Your task to perform on an android device: open app "Messages" Image 0: 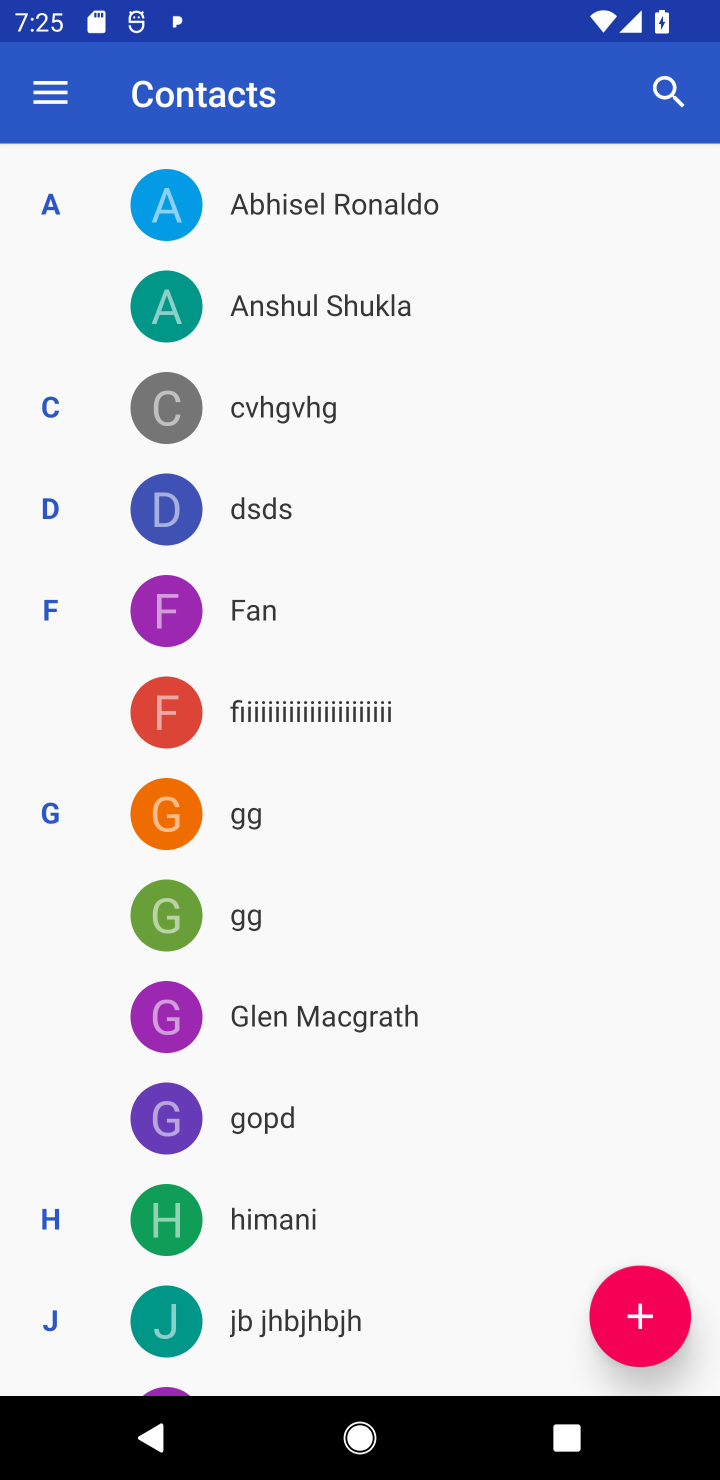
Step 0: press home button
Your task to perform on an android device: open app "Messages" Image 1: 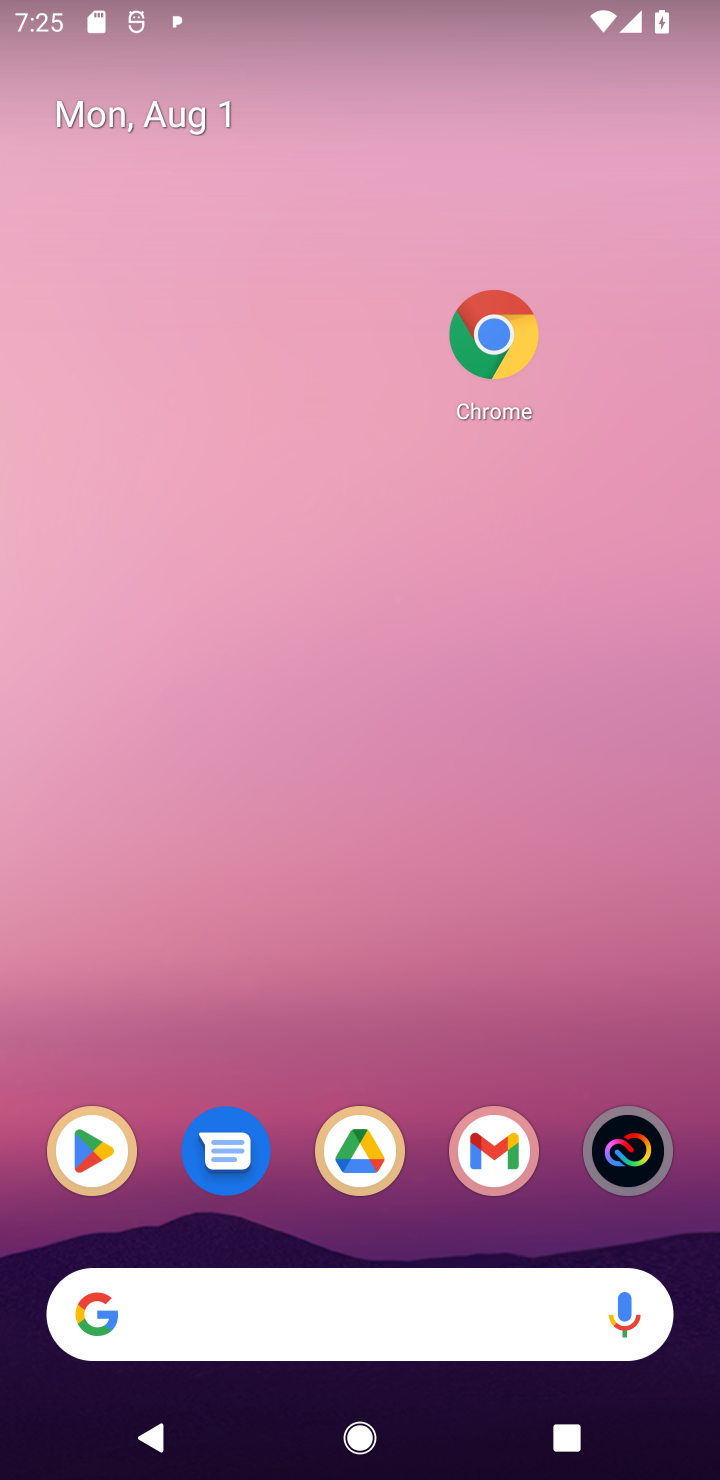
Step 1: click (94, 1161)
Your task to perform on an android device: open app "Messages" Image 2: 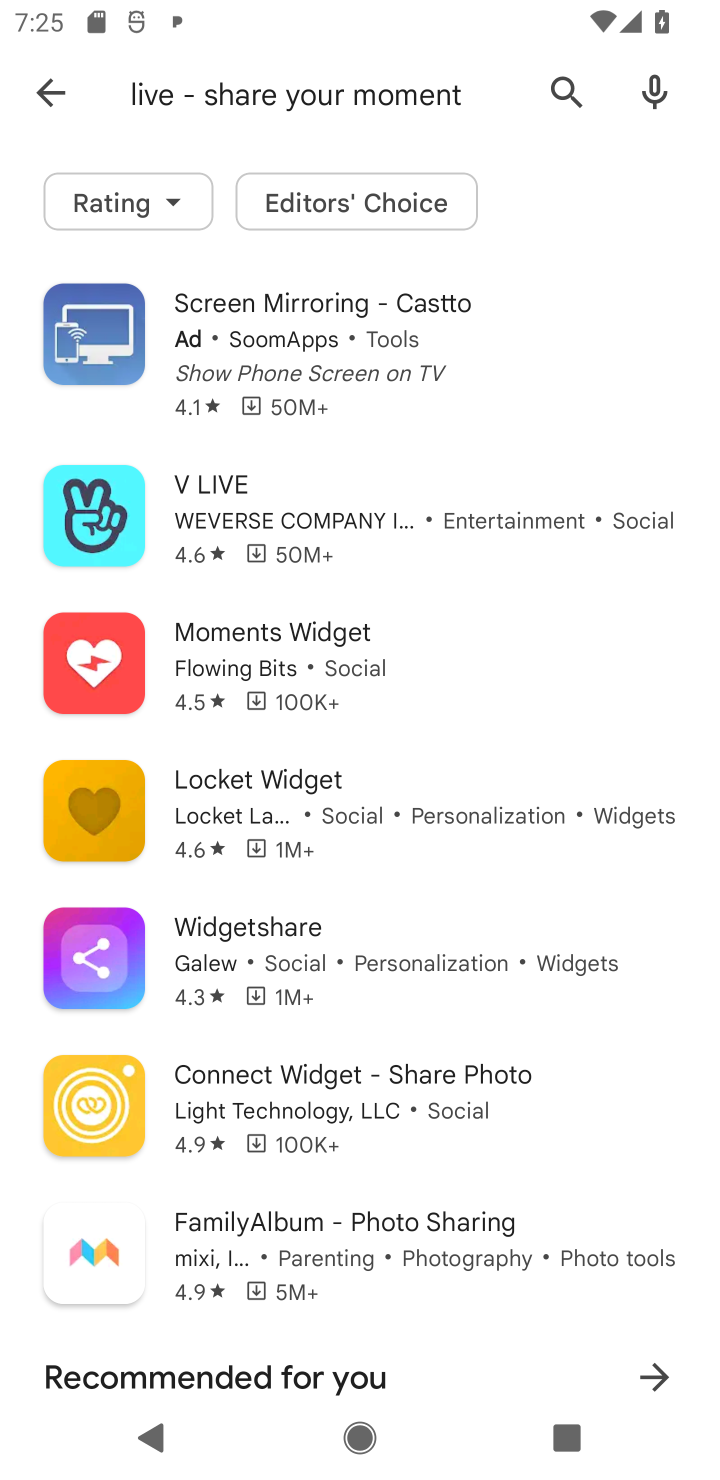
Step 2: click (540, 98)
Your task to perform on an android device: open app "Messages" Image 3: 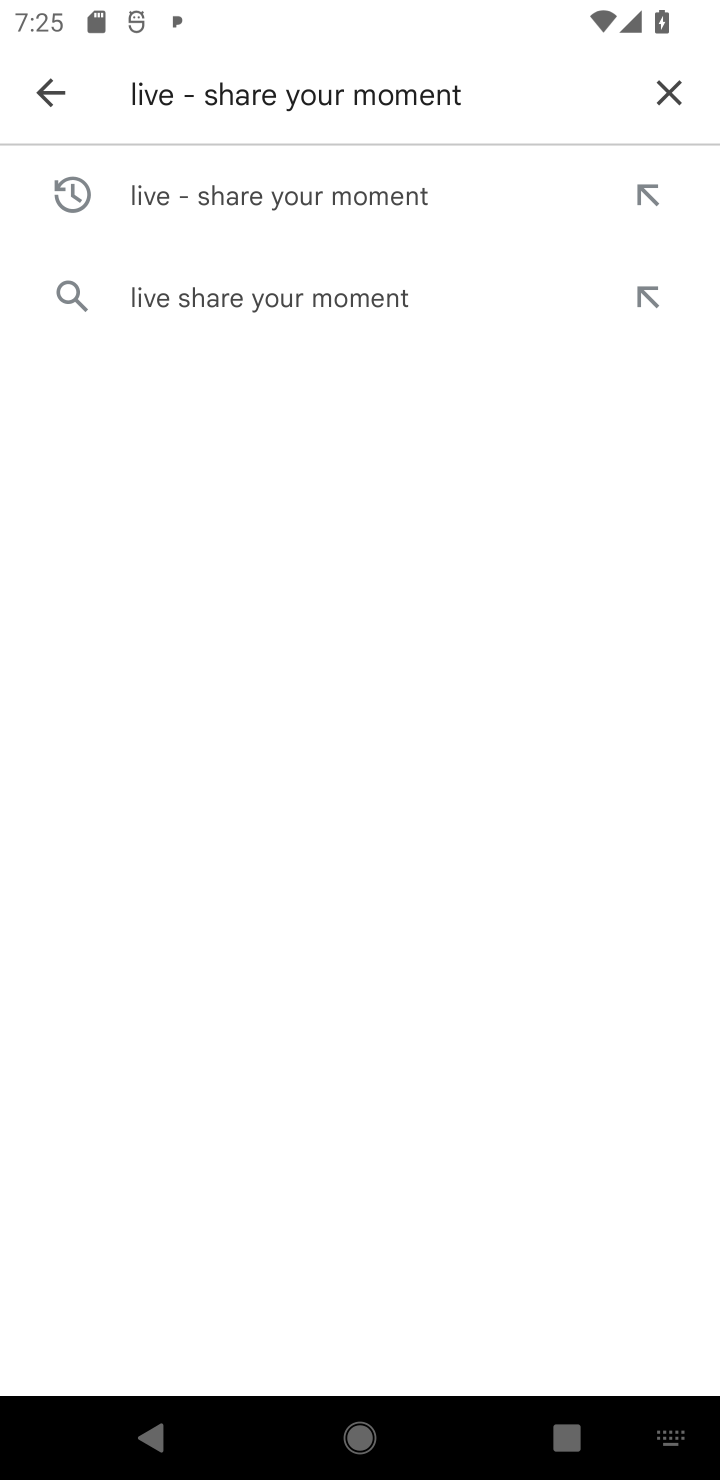
Step 3: click (660, 104)
Your task to perform on an android device: open app "Messages" Image 4: 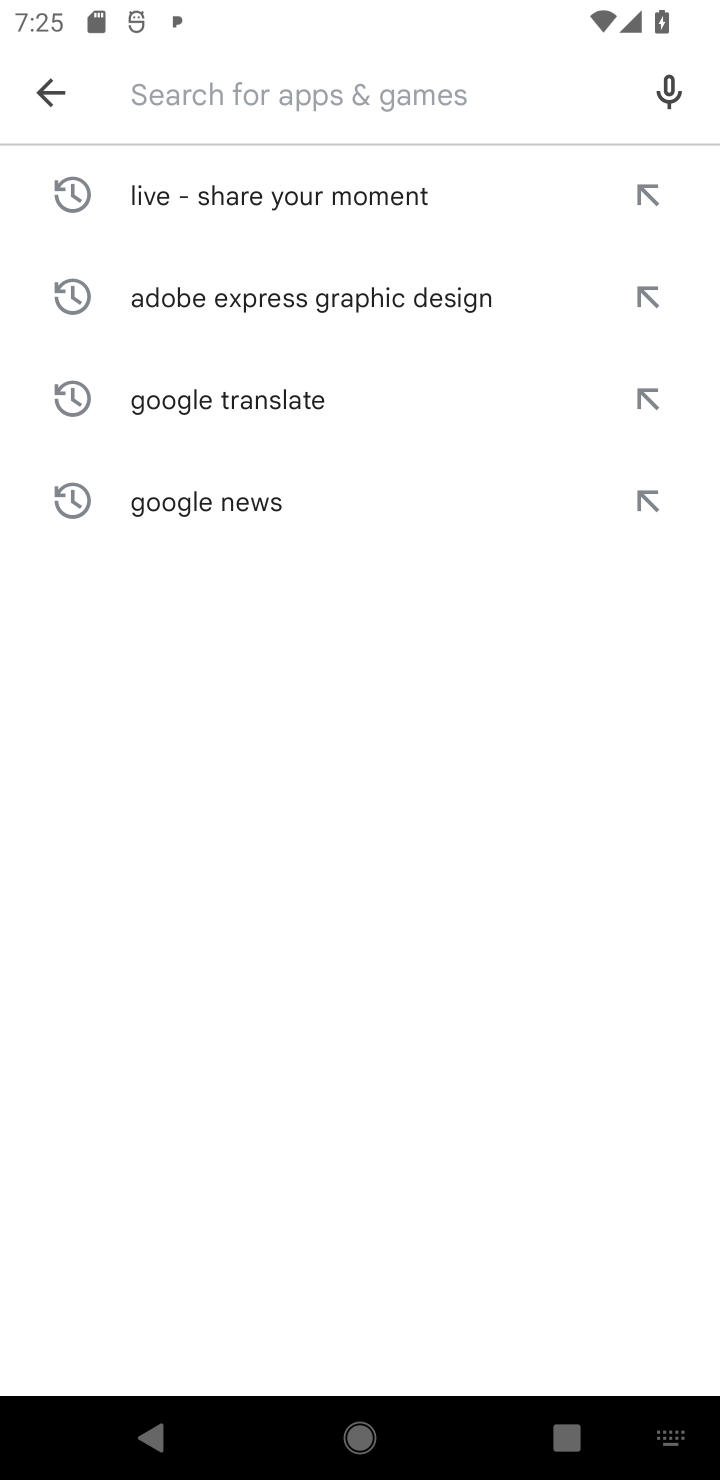
Step 4: click (347, 98)
Your task to perform on an android device: open app "Messages" Image 5: 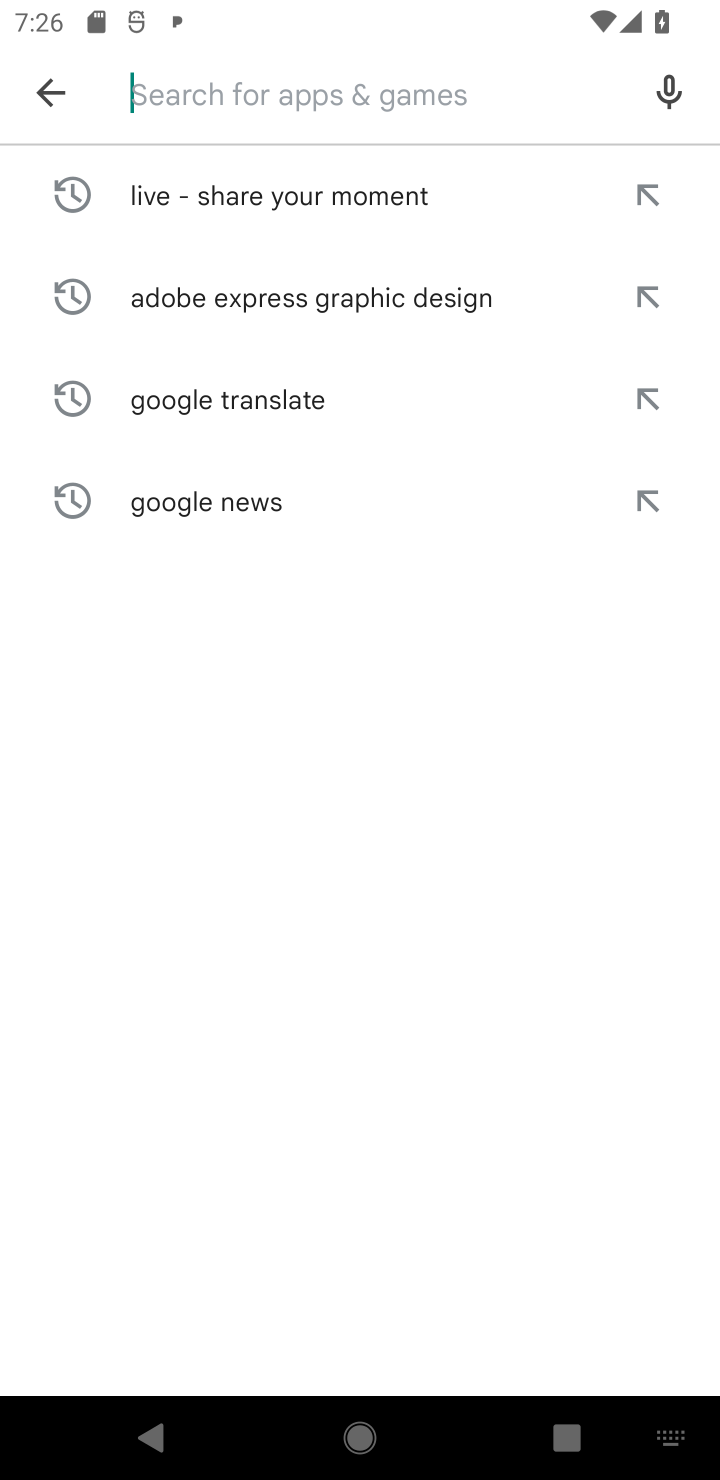
Step 5: type "Messages"
Your task to perform on an android device: open app "Messages" Image 6: 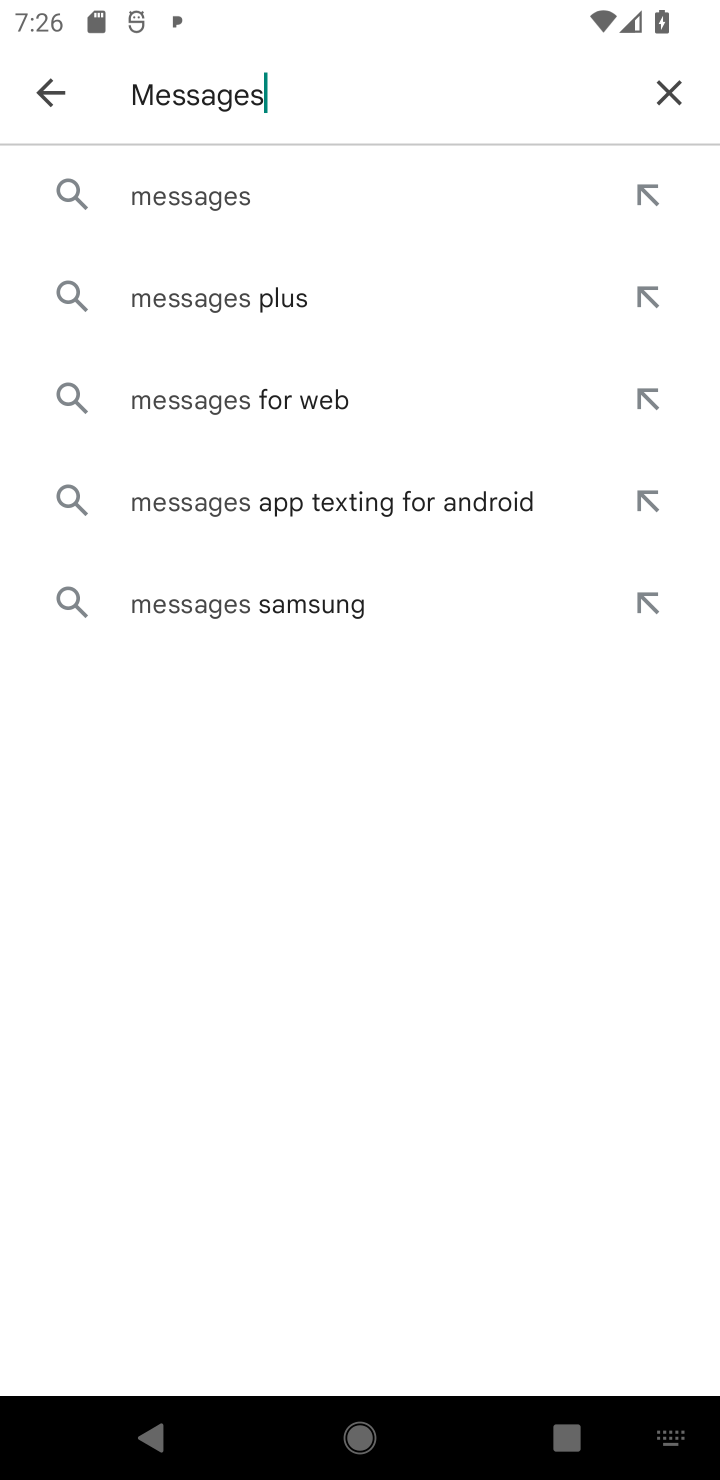
Step 6: click (211, 195)
Your task to perform on an android device: open app "Messages" Image 7: 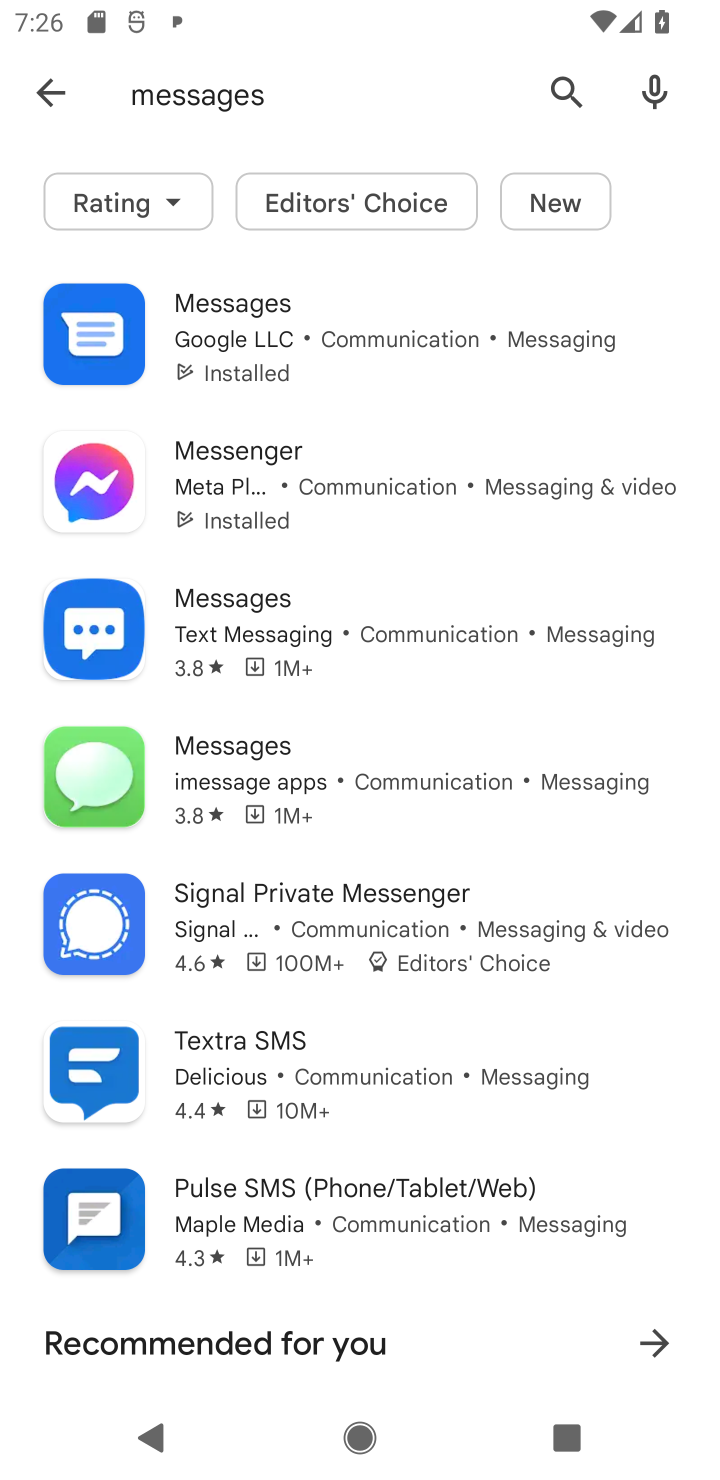
Step 7: click (221, 360)
Your task to perform on an android device: open app "Messages" Image 8: 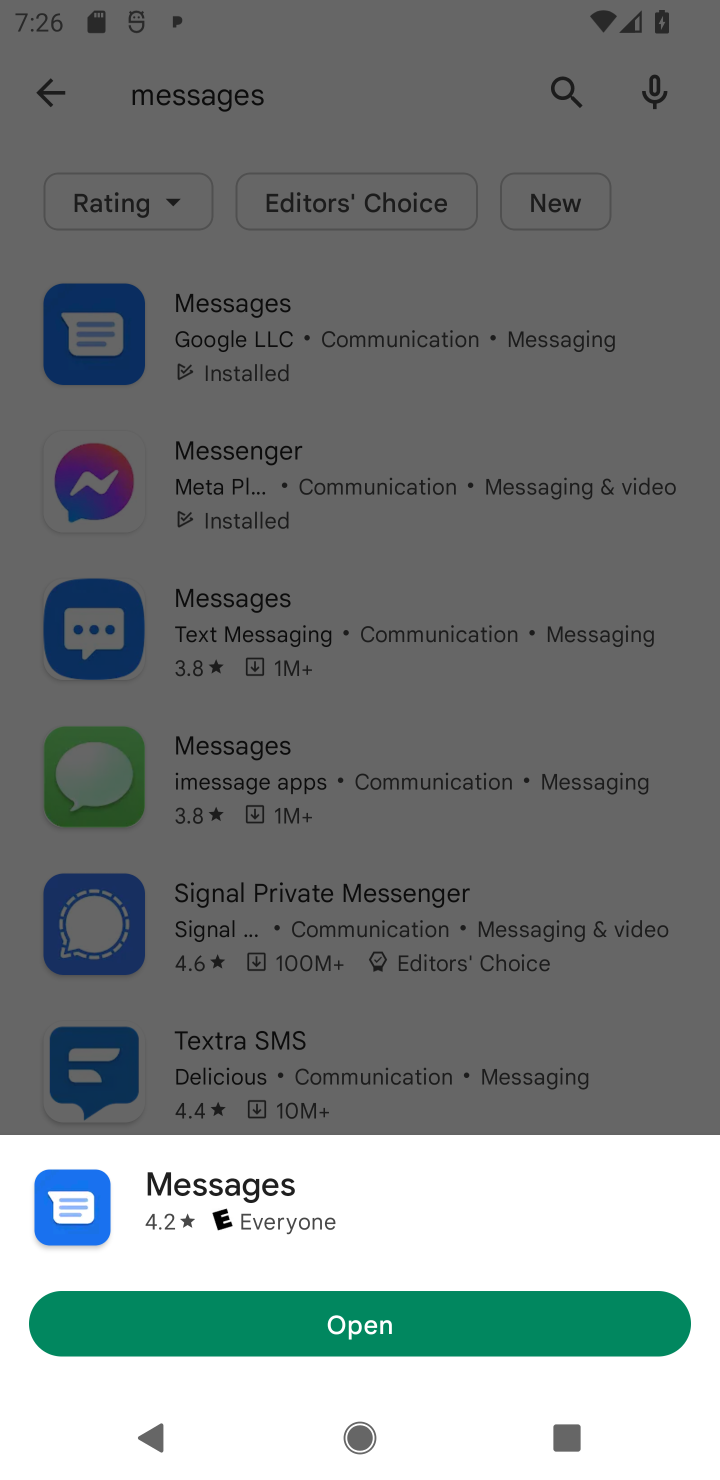
Step 8: click (328, 1330)
Your task to perform on an android device: open app "Messages" Image 9: 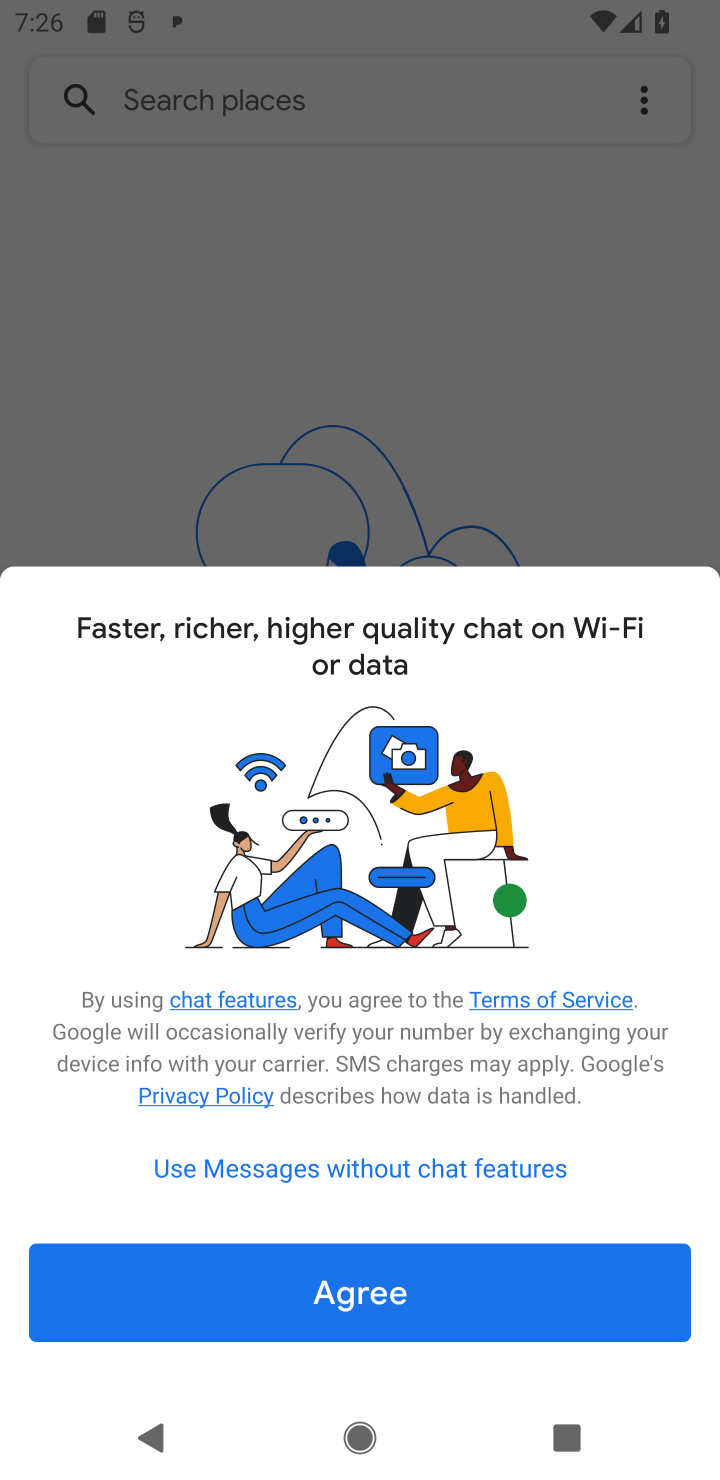
Step 9: task complete